Your task to perform on an android device: Open battery settings Image 0: 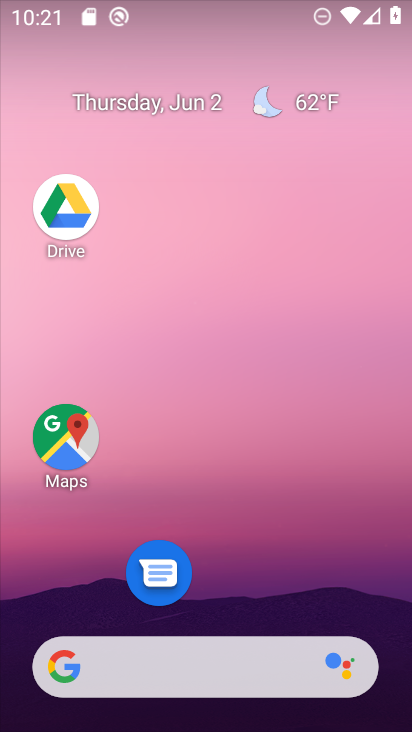
Step 0: drag from (223, 621) to (215, 83)
Your task to perform on an android device: Open battery settings Image 1: 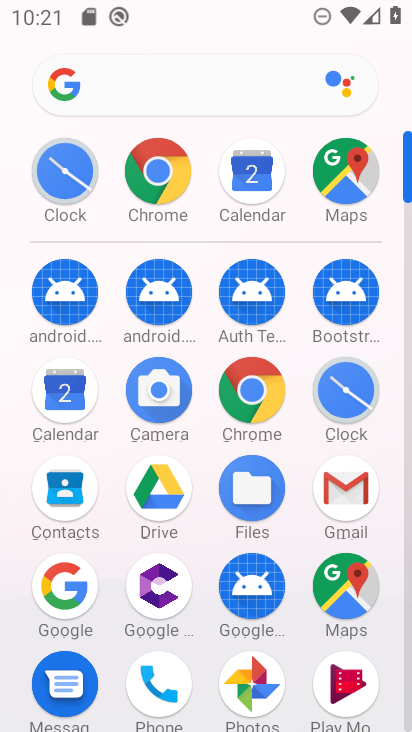
Step 1: drag from (116, 565) to (94, 176)
Your task to perform on an android device: Open battery settings Image 2: 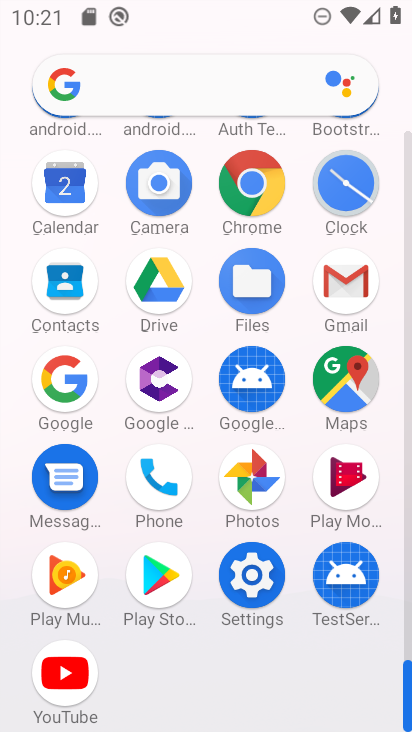
Step 2: click (267, 571)
Your task to perform on an android device: Open battery settings Image 3: 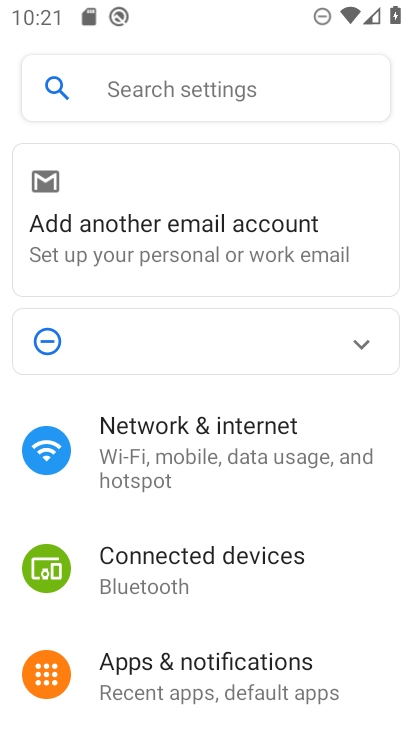
Step 3: drag from (96, 574) to (69, 115)
Your task to perform on an android device: Open battery settings Image 4: 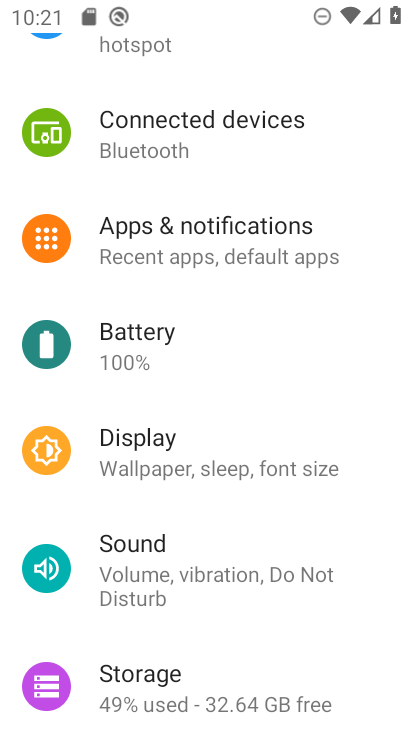
Step 4: click (121, 357)
Your task to perform on an android device: Open battery settings Image 5: 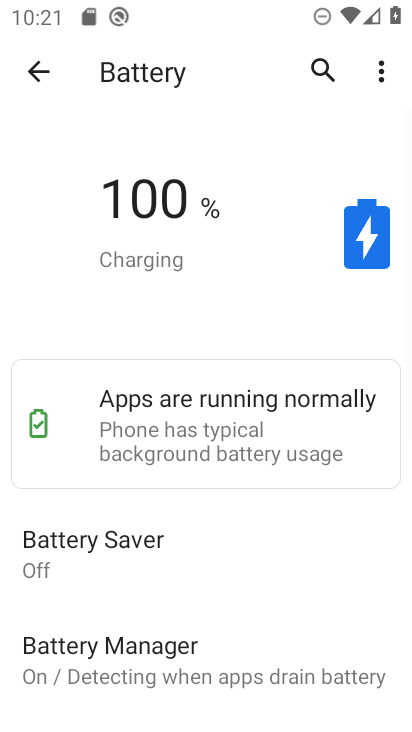
Step 5: task complete